Your task to perform on an android device: When is my next appointment? Image 0: 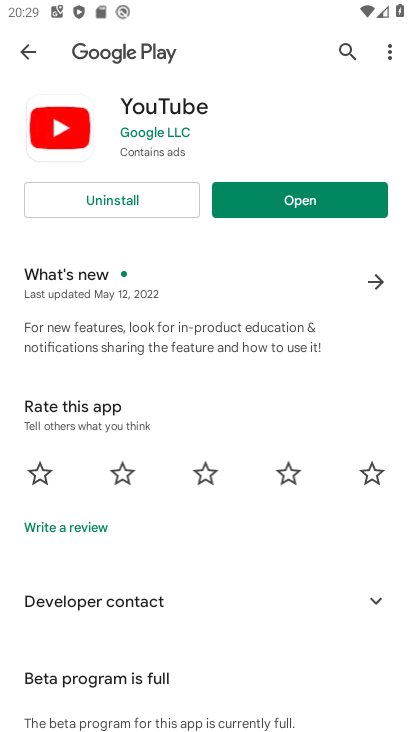
Step 0: press home button
Your task to perform on an android device: When is my next appointment? Image 1: 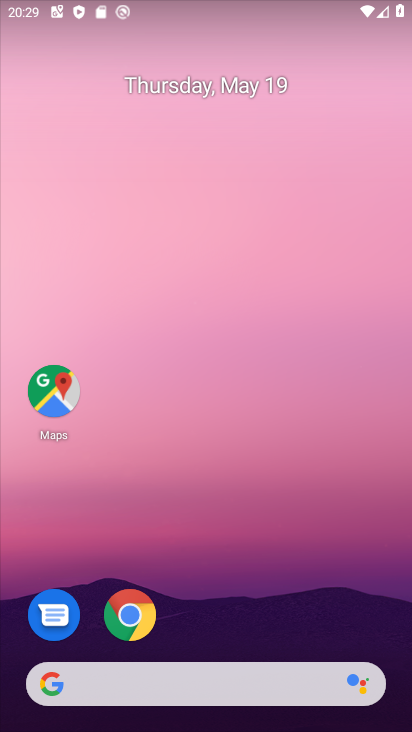
Step 1: click (224, 600)
Your task to perform on an android device: When is my next appointment? Image 2: 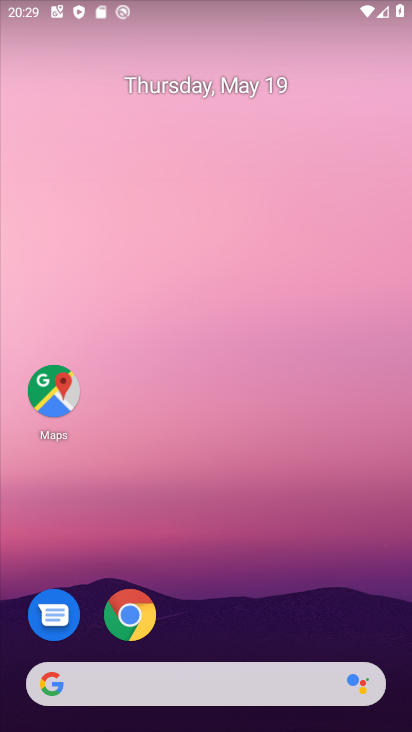
Step 2: drag from (215, 611) to (287, 107)
Your task to perform on an android device: When is my next appointment? Image 3: 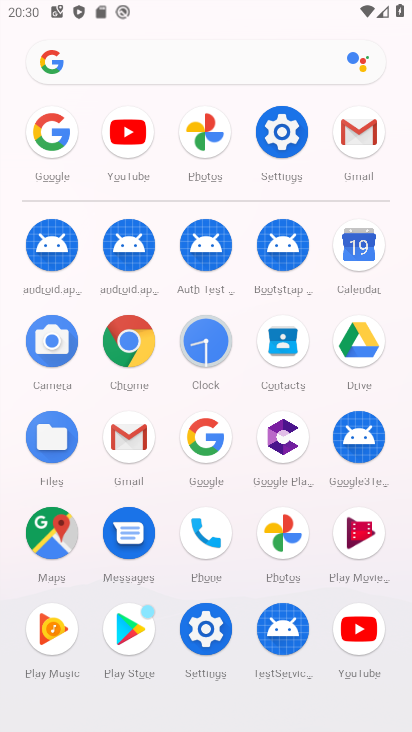
Step 3: click (368, 245)
Your task to perform on an android device: When is my next appointment? Image 4: 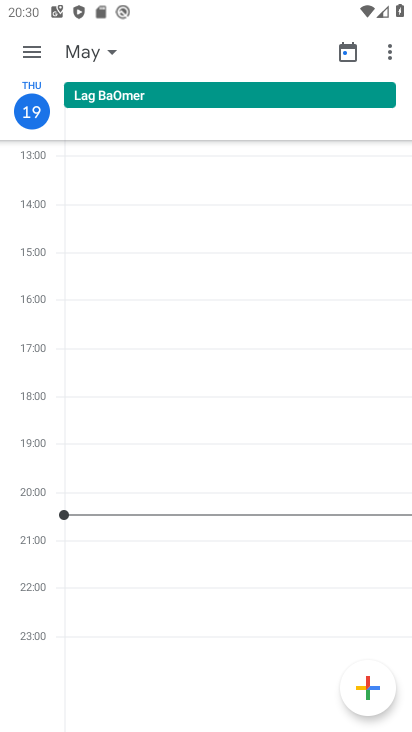
Step 4: click (101, 50)
Your task to perform on an android device: When is my next appointment? Image 5: 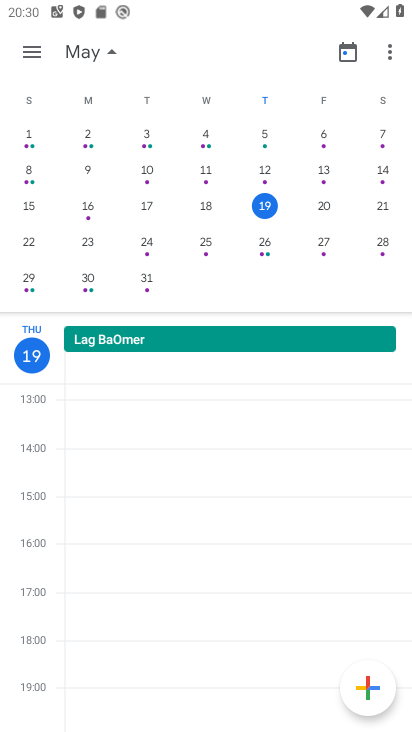
Step 5: click (82, 244)
Your task to perform on an android device: When is my next appointment? Image 6: 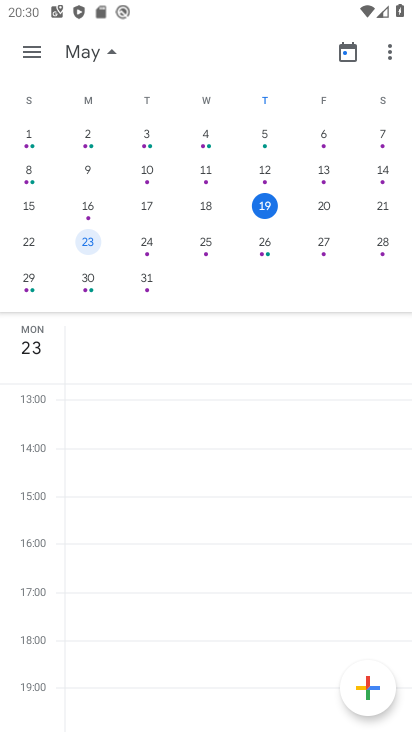
Step 6: click (34, 43)
Your task to perform on an android device: When is my next appointment? Image 7: 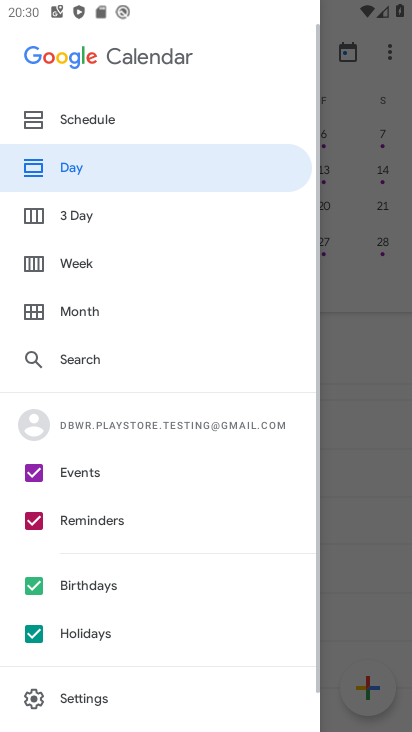
Step 7: click (86, 112)
Your task to perform on an android device: When is my next appointment? Image 8: 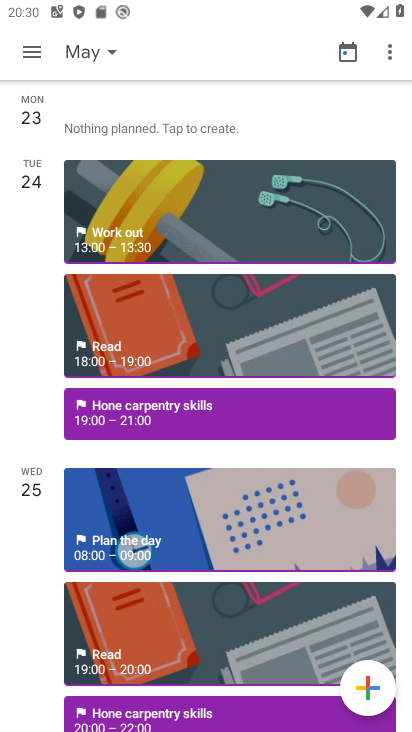
Step 8: task complete